Your task to perform on an android device: Open notification settings Image 0: 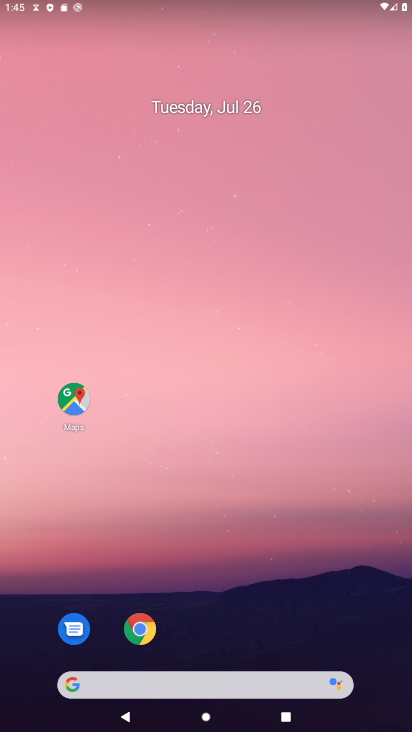
Step 0: drag from (289, 620) to (365, 37)
Your task to perform on an android device: Open notification settings Image 1: 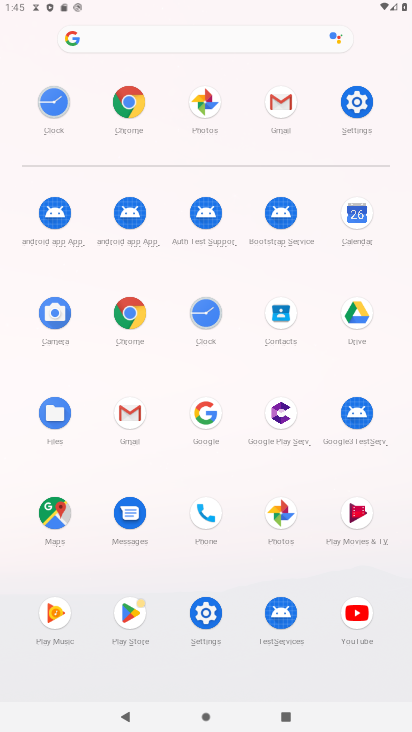
Step 1: click (356, 102)
Your task to perform on an android device: Open notification settings Image 2: 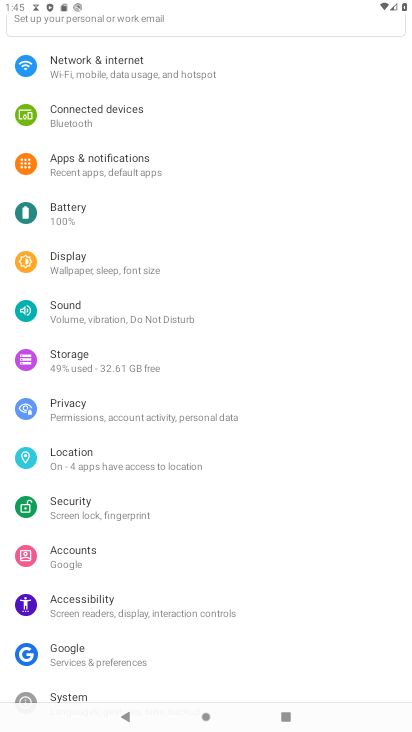
Step 2: click (153, 175)
Your task to perform on an android device: Open notification settings Image 3: 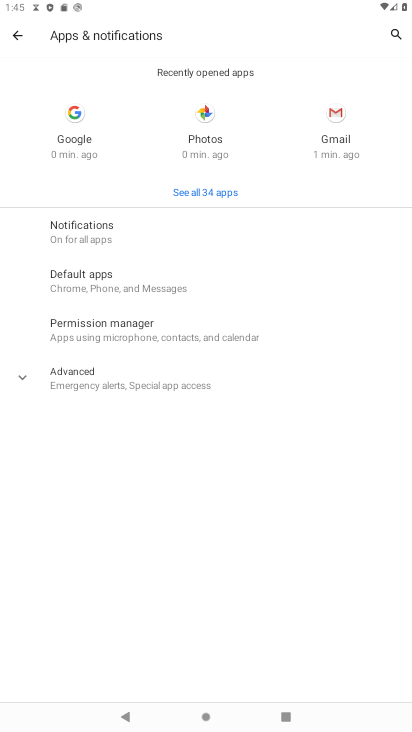
Step 3: click (86, 228)
Your task to perform on an android device: Open notification settings Image 4: 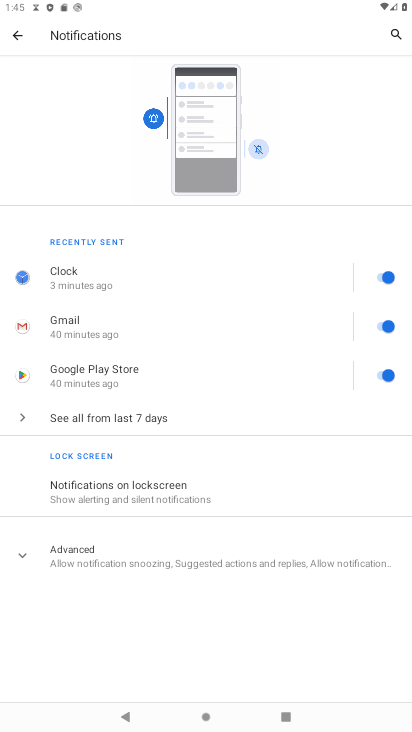
Step 4: task complete